Your task to perform on an android device: empty trash in the gmail app Image 0: 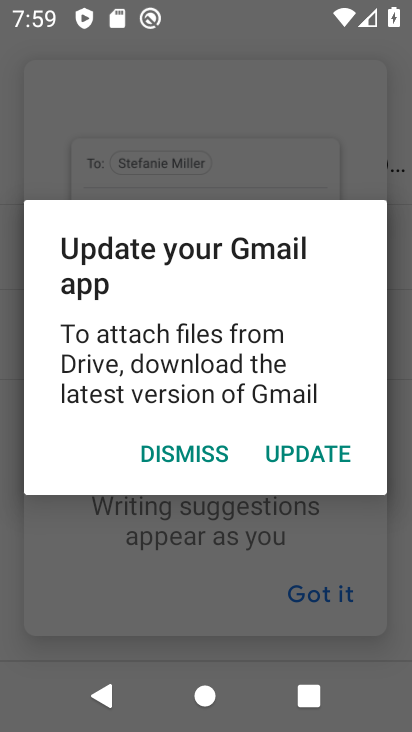
Step 0: press home button
Your task to perform on an android device: empty trash in the gmail app Image 1: 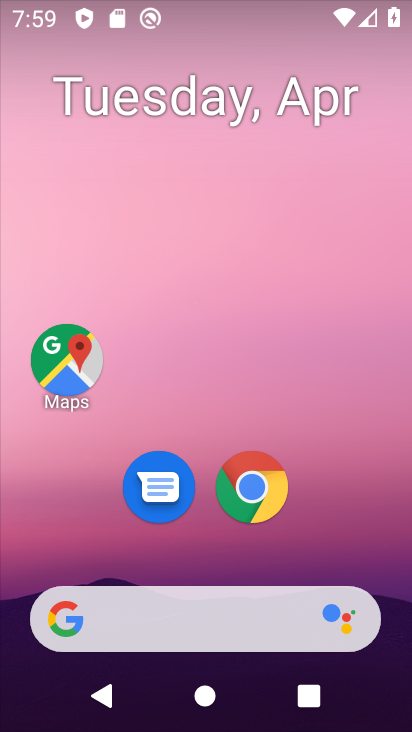
Step 1: drag from (158, 582) to (149, 318)
Your task to perform on an android device: empty trash in the gmail app Image 2: 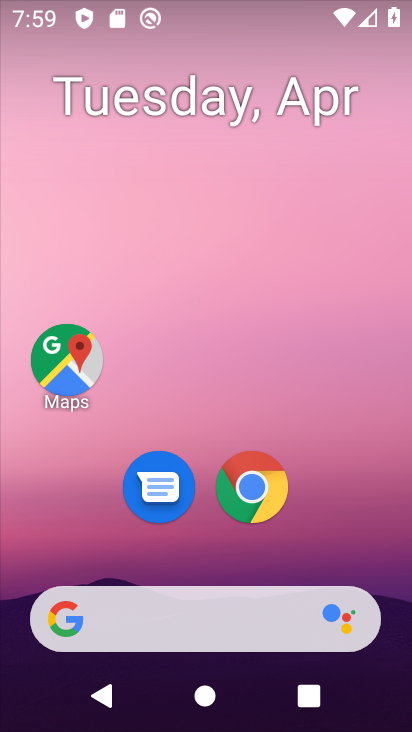
Step 2: drag from (219, 574) to (219, 260)
Your task to perform on an android device: empty trash in the gmail app Image 3: 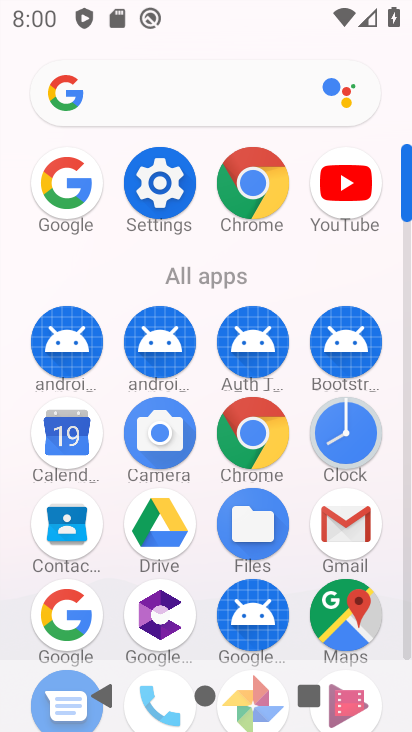
Step 3: click (357, 522)
Your task to perform on an android device: empty trash in the gmail app Image 4: 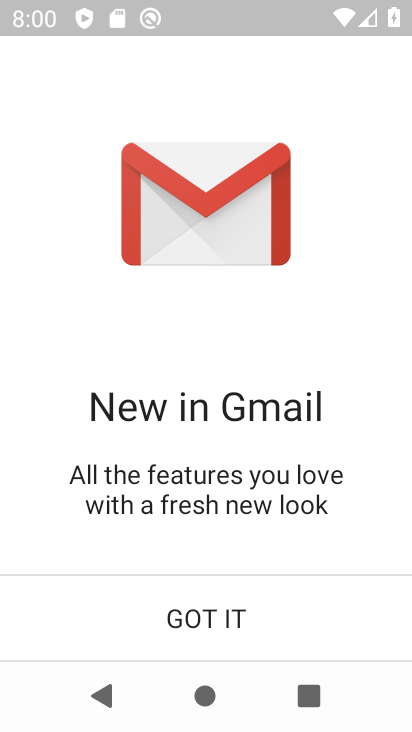
Step 4: click (257, 610)
Your task to perform on an android device: empty trash in the gmail app Image 5: 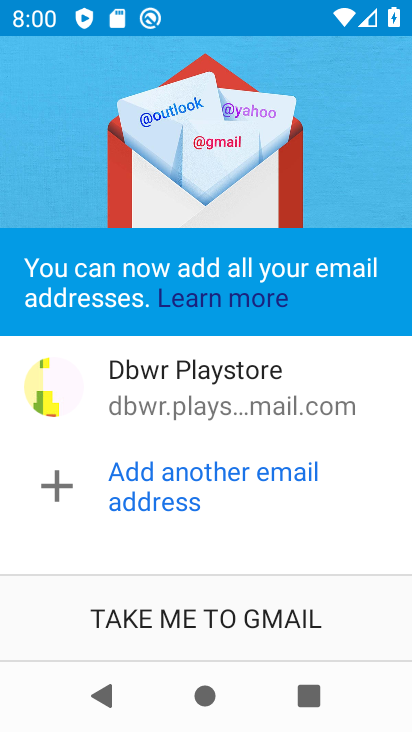
Step 5: click (228, 631)
Your task to perform on an android device: empty trash in the gmail app Image 6: 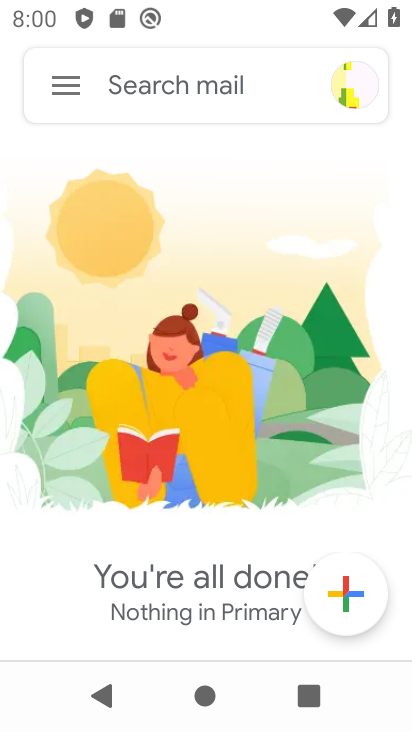
Step 6: click (64, 93)
Your task to perform on an android device: empty trash in the gmail app Image 7: 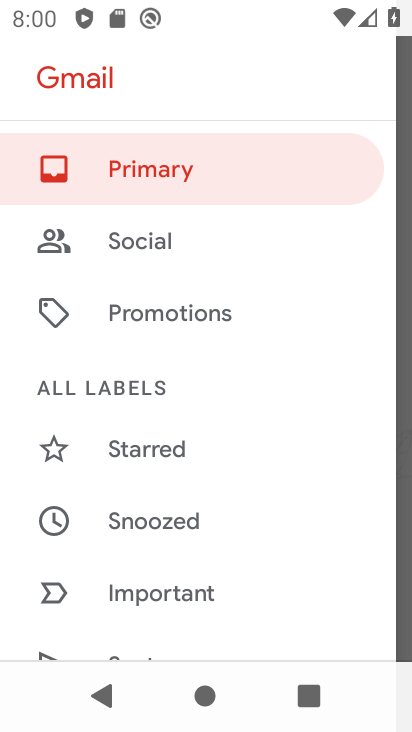
Step 7: drag from (156, 609) to (178, 318)
Your task to perform on an android device: empty trash in the gmail app Image 8: 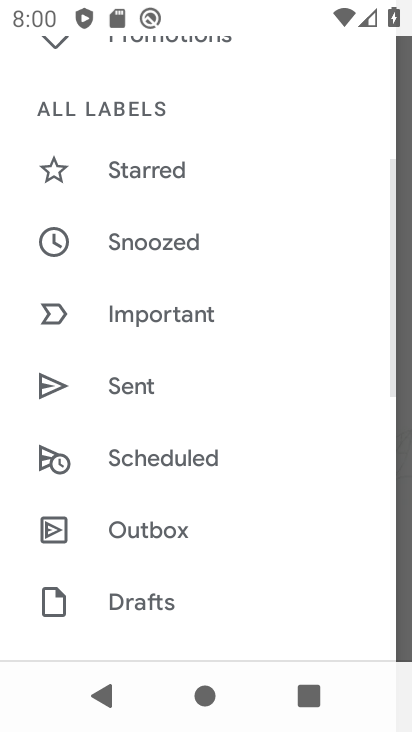
Step 8: drag from (161, 625) to (176, 357)
Your task to perform on an android device: empty trash in the gmail app Image 9: 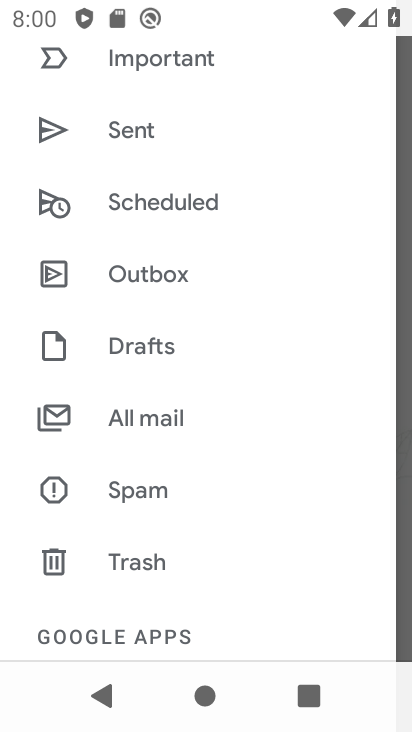
Step 9: click (160, 567)
Your task to perform on an android device: empty trash in the gmail app Image 10: 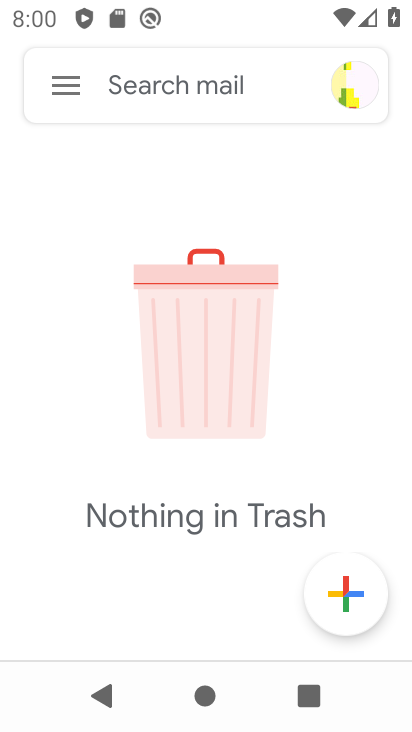
Step 10: task complete